Your task to perform on an android device: Play the last video I watched on Youtube Image 0: 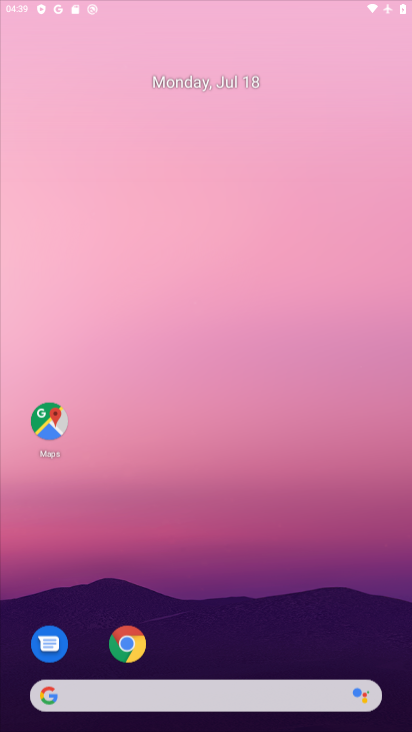
Step 0: press home button
Your task to perform on an android device: Play the last video I watched on Youtube Image 1: 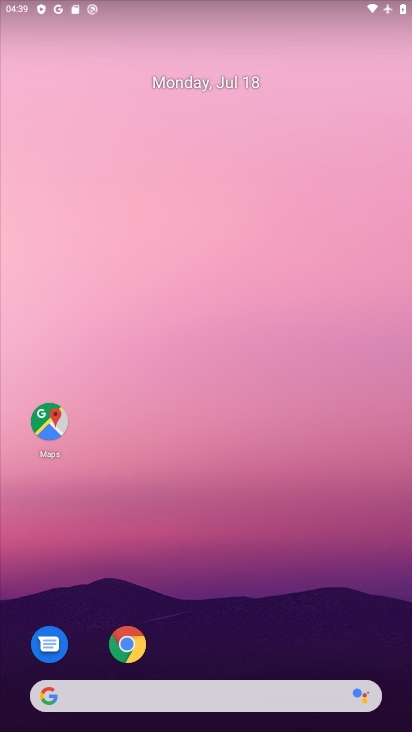
Step 1: drag from (219, 658) to (210, 111)
Your task to perform on an android device: Play the last video I watched on Youtube Image 2: 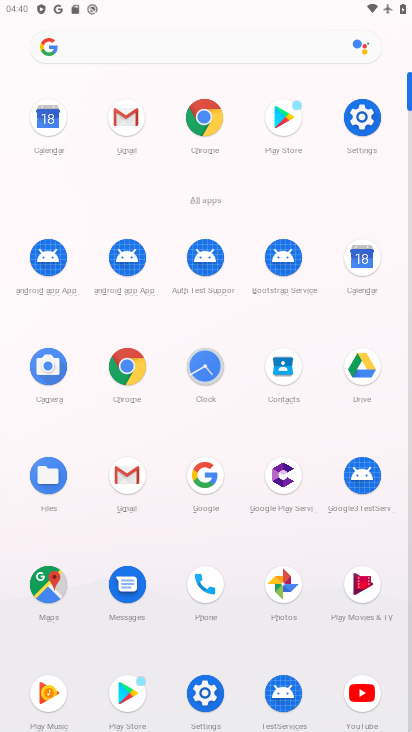
Step 2: click (357, 702)
Your task to perform on an android device: Play the last video I watched on Youtube Image 3: 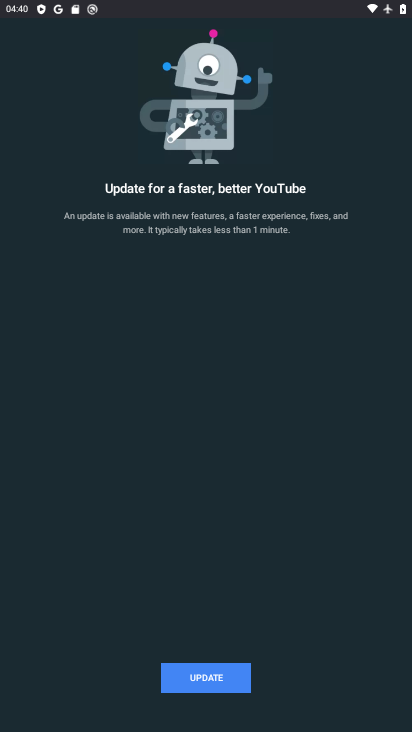
Step 3: click (215, 682)
Your task to perform on an android device: Play the last video I watched on Youtube Image 4: 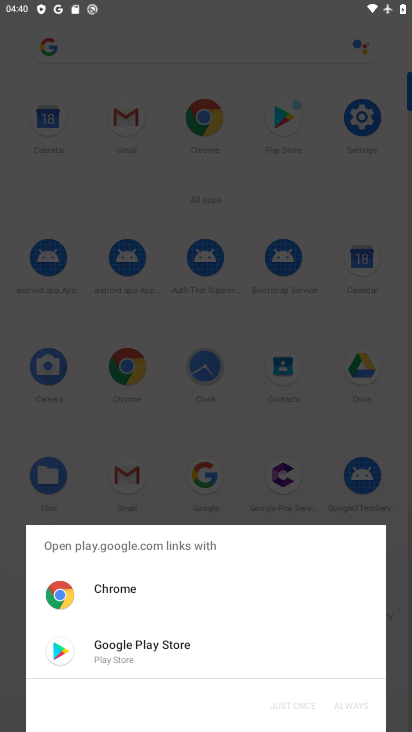
Step 4: click (132, 651)
Your task to perform on an android device: Play the last video I watched on Youtube Image 5: 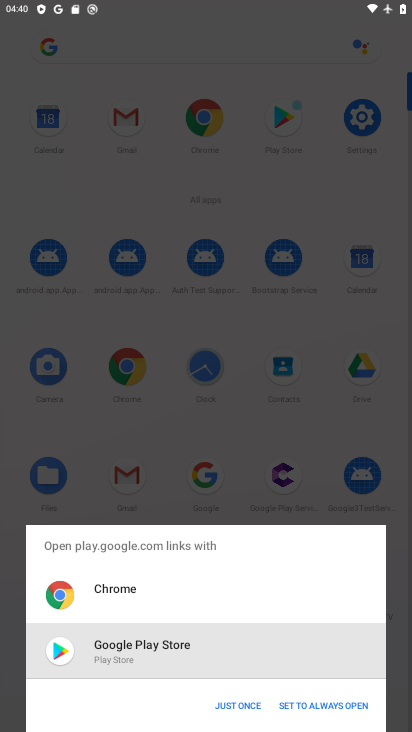
Step 5: click (224, 708)
Your task to perform on an android device: Play the last video I watched on Youtube Image 6: 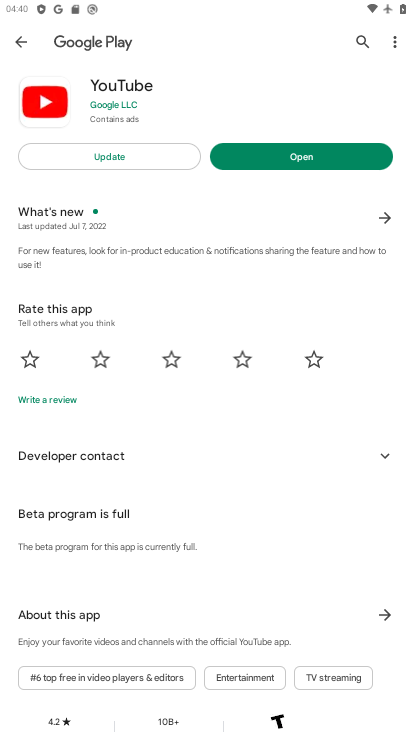
Step 6: click (124, 158)
Your task to perform on an android device: Play the last video I watched on Youtube Image 7: 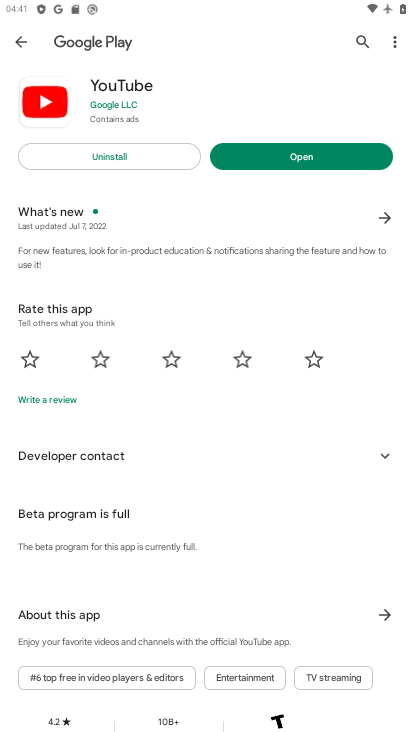
Step 7: click (260, 155)
Your task to perform on an android device: Play the last video I watched on Youtube Image 8: 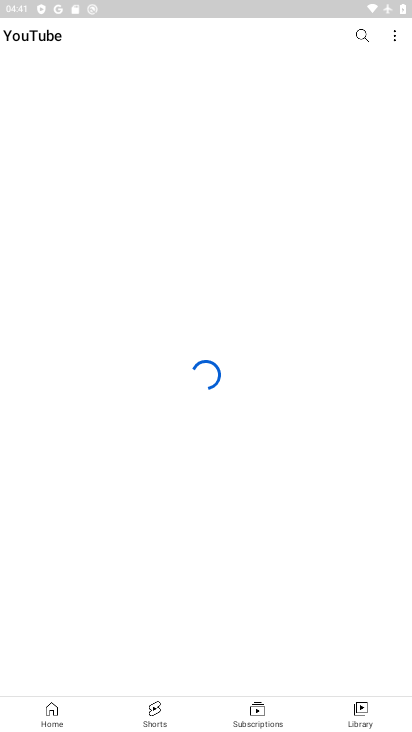
Step 8: click (358, 719)
Your task to perform on an android device: Play the last video I watched on Youtube Image 9: 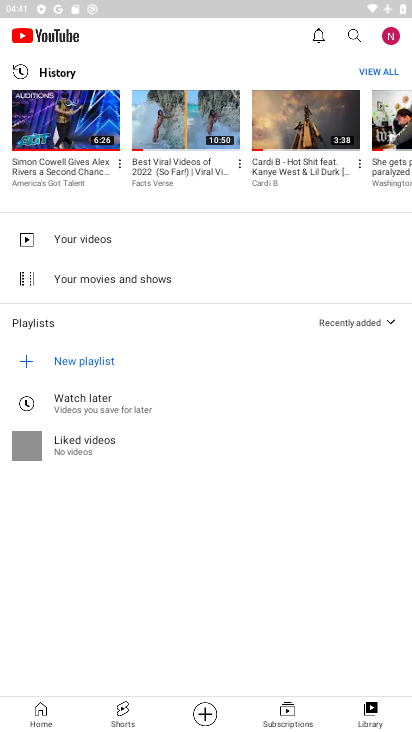
Step 9: click (34, 111)
Your task to perform on an android device: Play the last video I watched on Youtube Image 10: 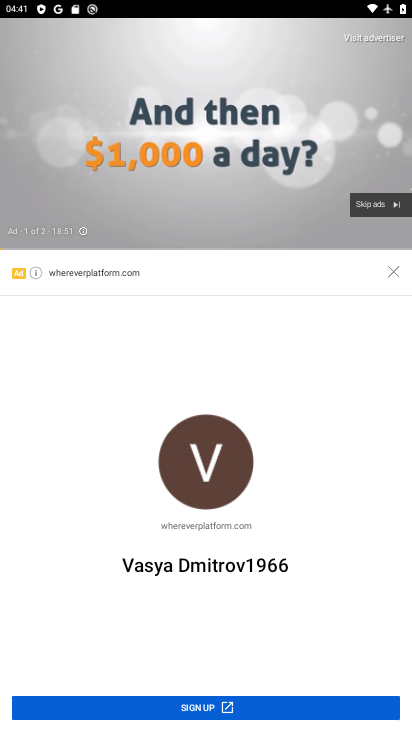
Step 10: click (387, 273)
Your task to perform on an android device: Play the last video I watched on Youtube Image 11: 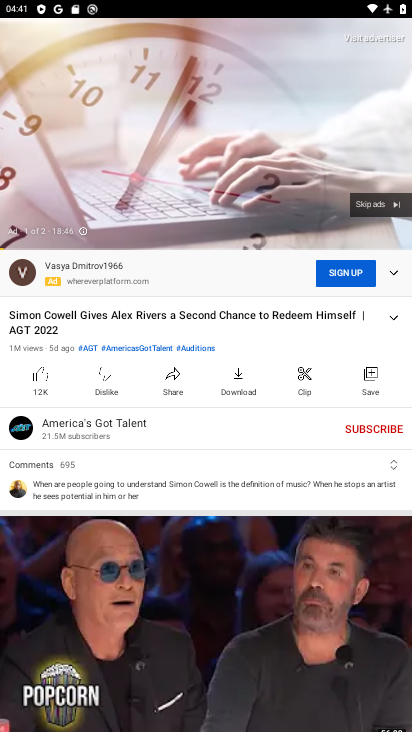
Step 11: click (369, 206)
Your task to perform on an android device: Play the last video I watched on Youtube Image 12: 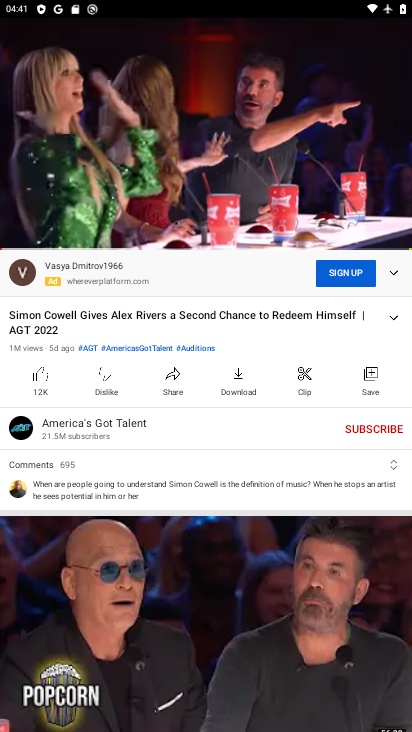
Step 12: task complete